Your task to perform on an android device: Open Amazon Image 0: 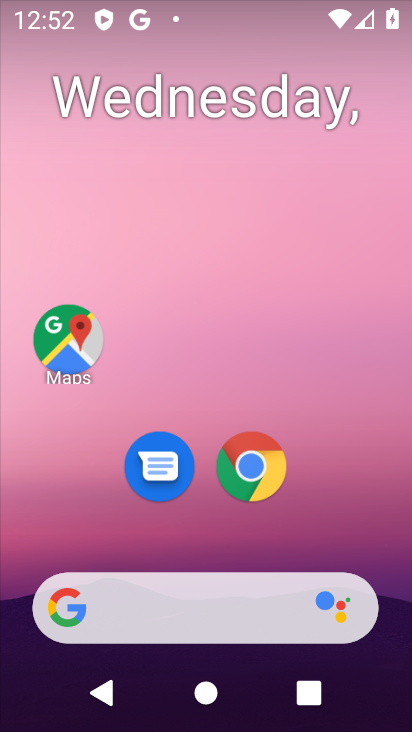
Step 0: click (246, 473)
Your task to perform on an android device: Open Amazon Image 1: 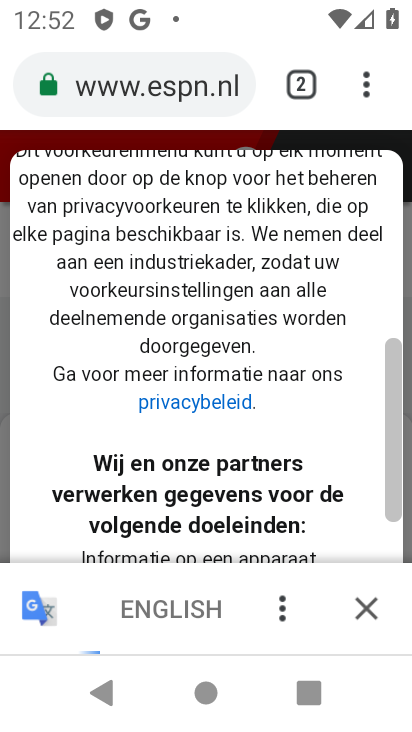
Step 1: click (296, 83)
Your task to perform on an android device: Open Amazon Image 2: 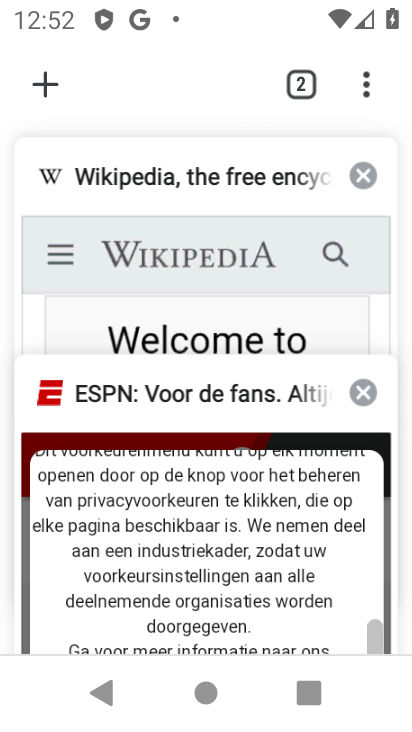
Step 2: click (33, 76)
Your task to perform on an android device: Open Amazon Image 3: 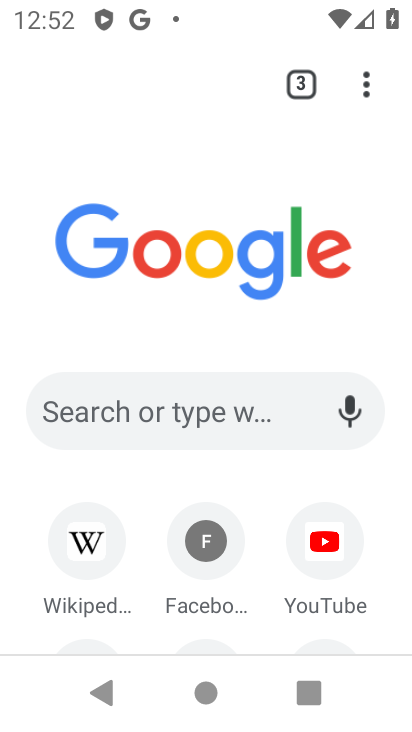
Step 3: drag from (235, 568) to (281, 243)
Your task to perform on an android device: Open Amazon Image 4: 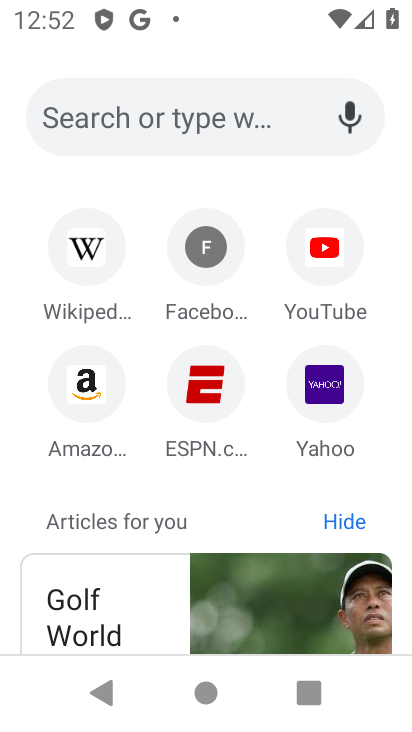
Step 4: click (72, 402)
Your task to perform on an android device: Open Amazon Image 5: 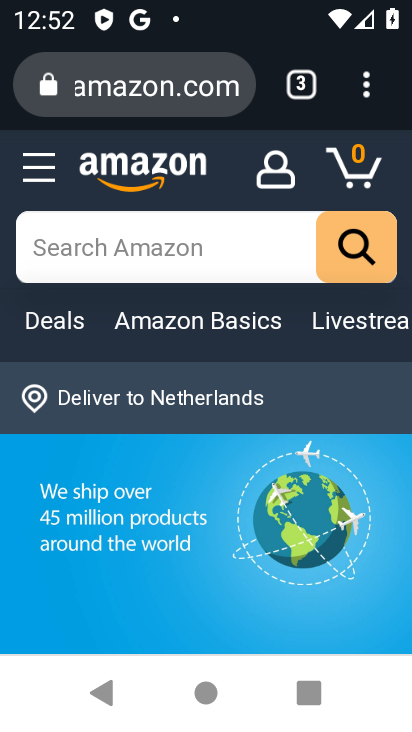
Step 5: task complete